Your task to perform on an android device: turn smart compose on in the gmail app Image 0: 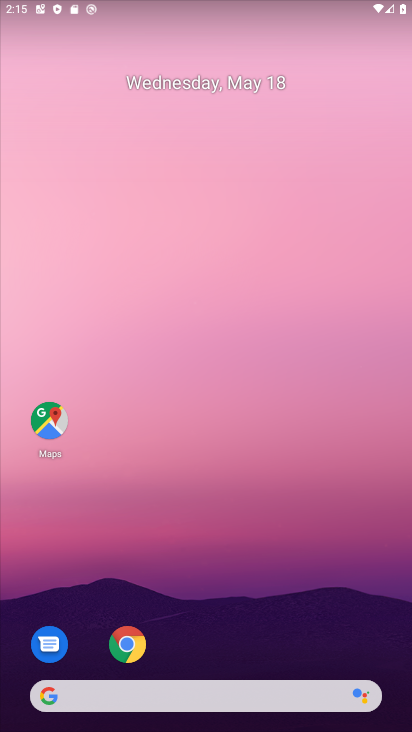
Step 0: drag from (128, 663) to (250, 8)
Your task to perform on an android device: turn smart compose on in the gmail app Image 1: 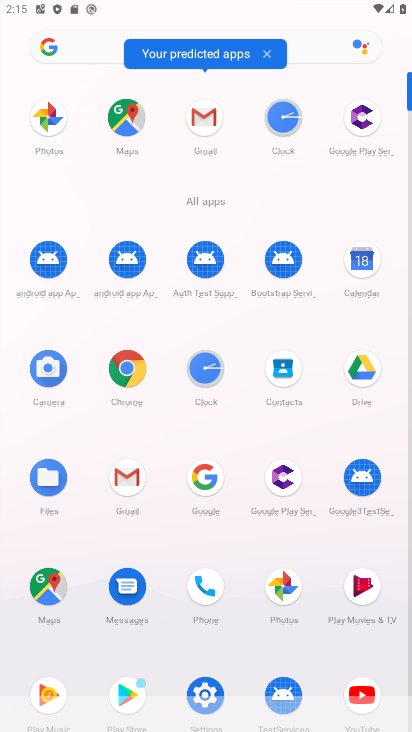
Step 1: click (213, 102)
Your task to perform on an android device: turn smart compose on in the gmail app Image 2: 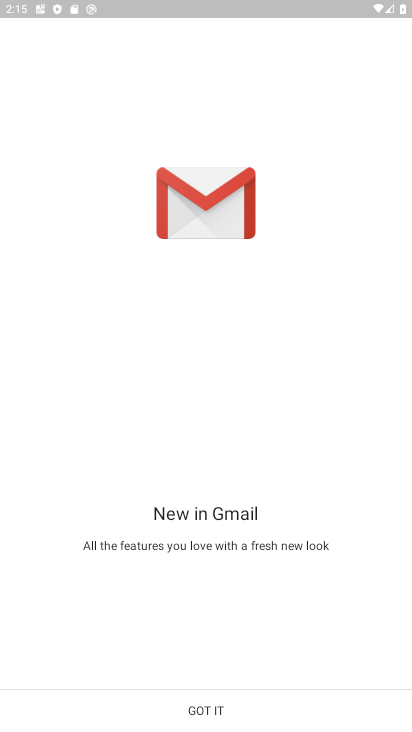
Step 2: click (197, 709)
Your task to perform on an android device: turn smart compose on in the gmail app Image 3: 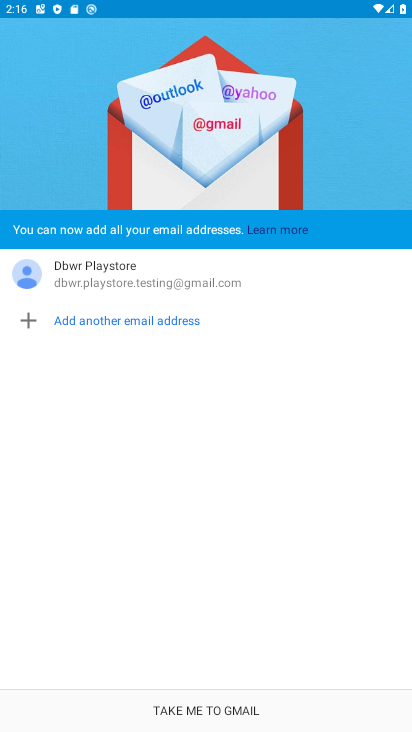
Step 3: click (203, 713)
Your task to perform on an android device: turn smart compose on in the gmail app Image 4: 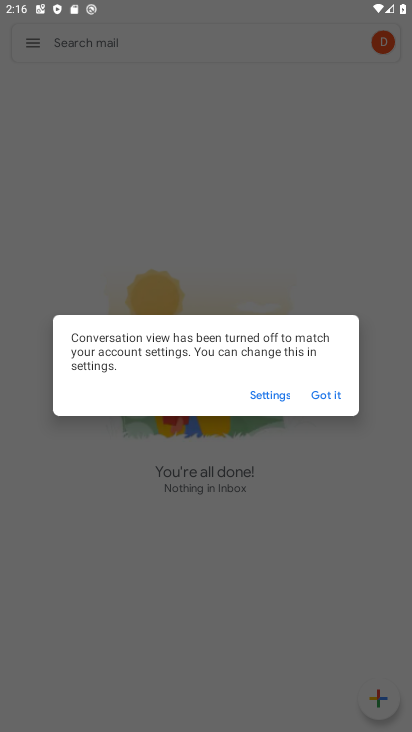
Step 4: click (331, 402)
Your task to perform on an android device: turn smart compose on in the gmail app Image 5: 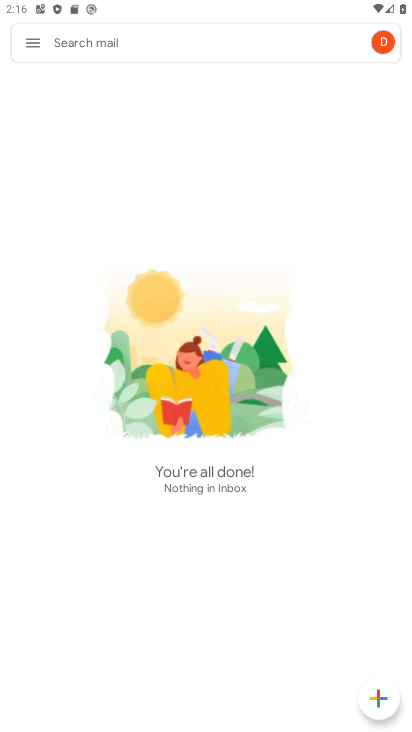
Step 5: click (31, 34)
Your task to perform on an android device: turn smart compose on in the gmail app Image 6: 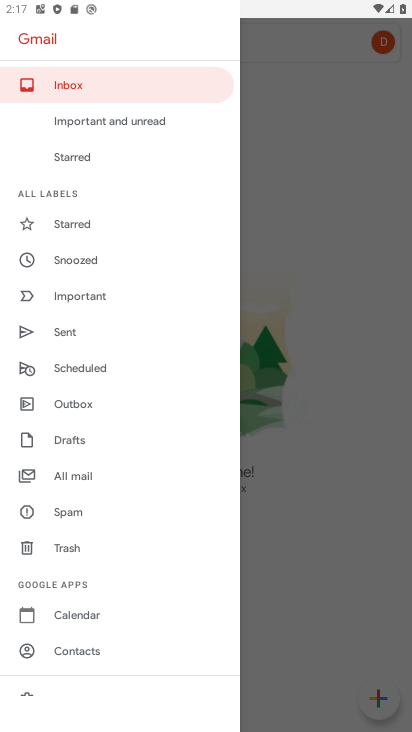
Step 6: drag from (128, 682) to (159, 246)
Your task to perform on an android device: turn smart compose on in the gmail app Image 7: 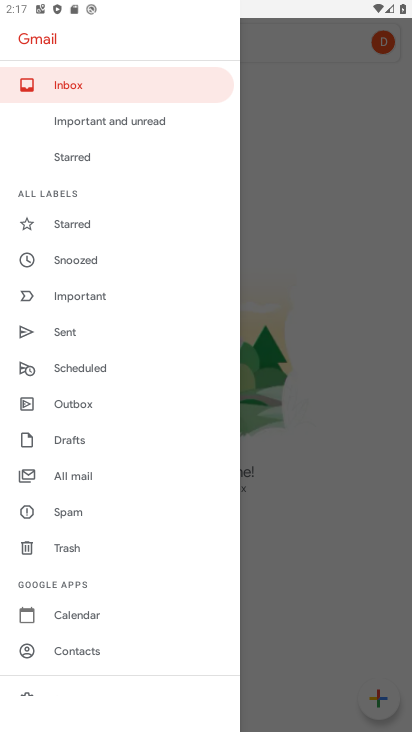
Step 7: drag from (63, 617) to (100, 186)
Your task to perform on an android device: turn smart compose on in the gmail app Image 8: 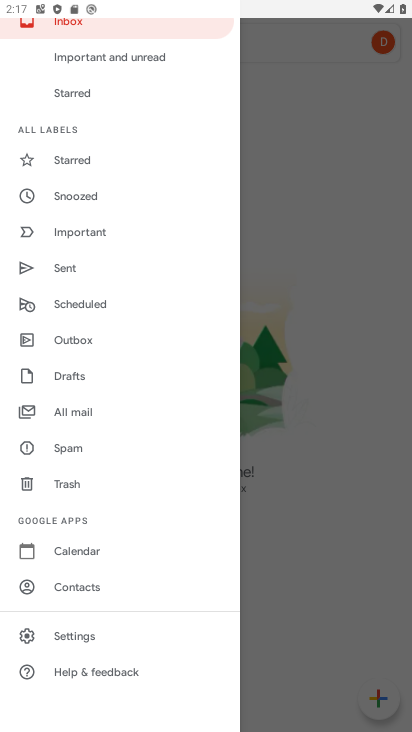
Step 8: click (94, 630)
Your task to perform on an android device: turn smart compose on in the gmail app Image 9: 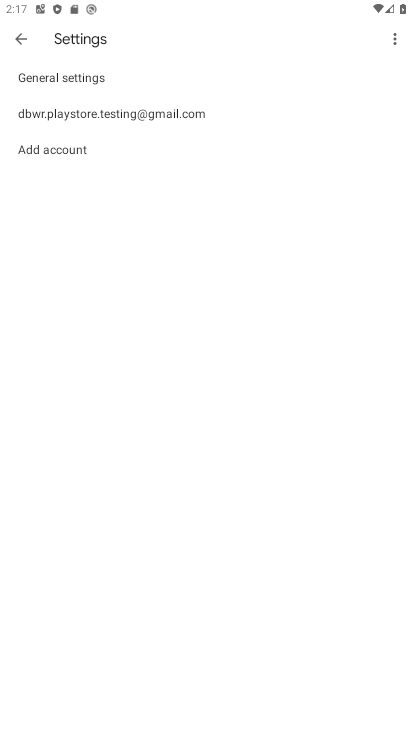
Step 9: click (75, 113)
Your task to perform on an android device: turn smart compose on in the gmail app Image 10: 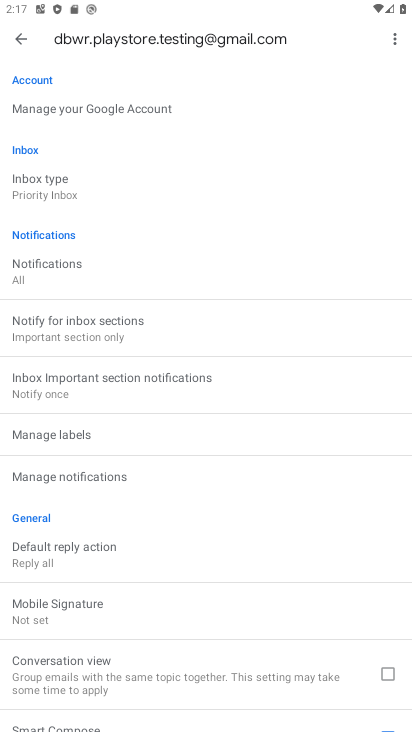
Step 10: task complete